Your task to perform on an android device: turn off notifications settings in the gmail app Image 0: 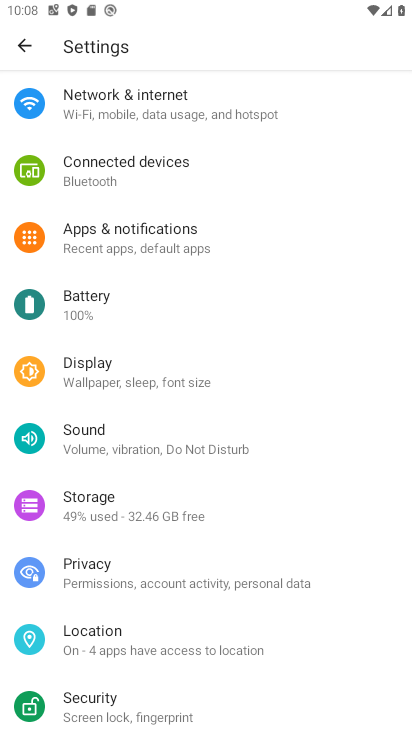
Step 0: press home button
Your task to perform on an android device: turn off notifications settings in the gmail app Image 1: 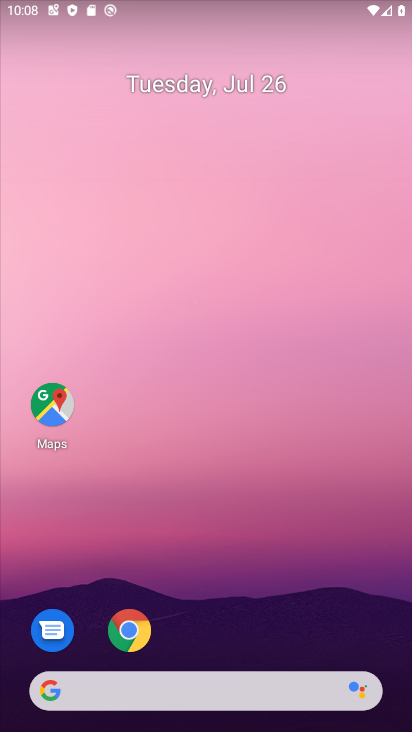
Step 1: drag from (373, 659) to (341, 370)
Your task to perform on an android device: turn off notifications settings in the gmail app Image 2: 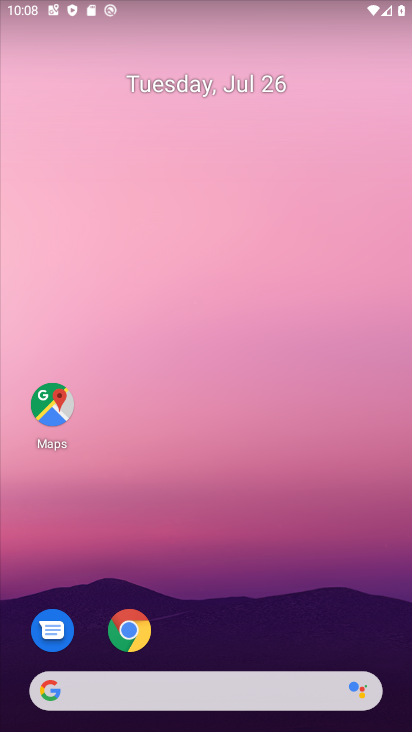
Step 2: drag from (349, 650) to (321, 335)
Your task to perform on an android device: turn off notifications settings in the gmail app Image 3: 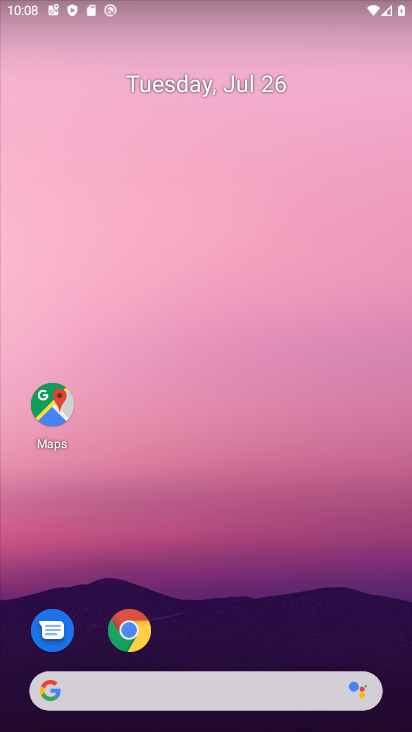
Step 3: drag from (378, 623) to (308, 212)
Your task to perform on an android device: turn off notifications settings in the gmail app Image 4: 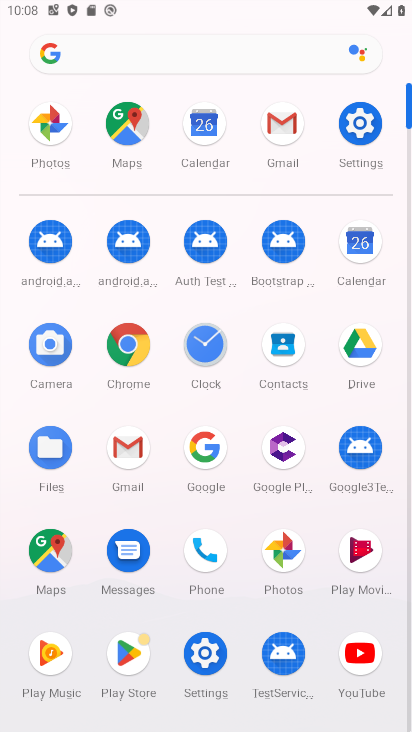
Step 4: click (130, 448)
Your task to perform on an android device: turn off notifications settings in the gmail app Image 5: 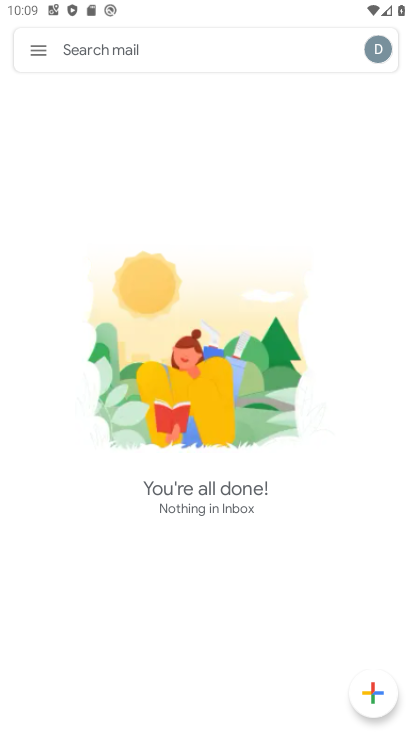
Step 5: click (35, 52)
Your task to perform on an android device: turn off notifications settings in the gmail app Image 6: 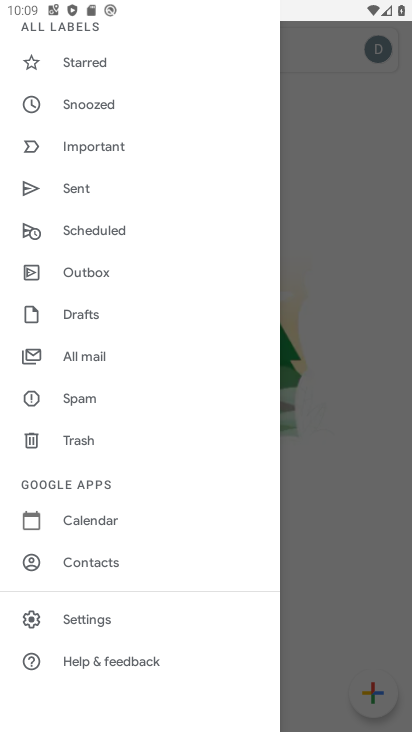
Step 6: click (83, 620)
Your task to perform on an android device: turn off notifications settings in the gmail app Image 7: 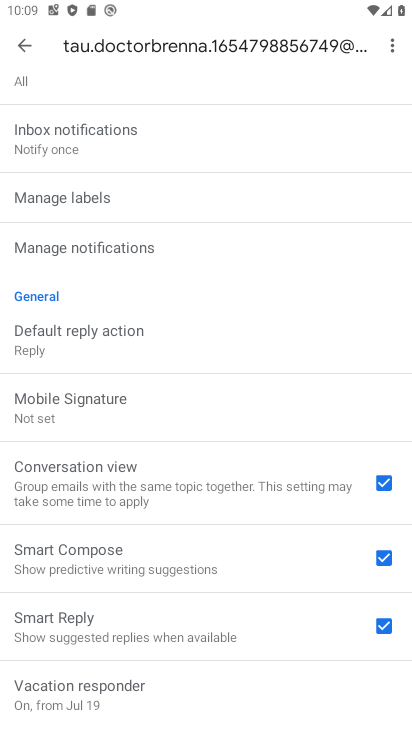
Step 7: click (99, 254)
Your task to perform on an android device: turn off notifications settings in the gmail app Image 8: 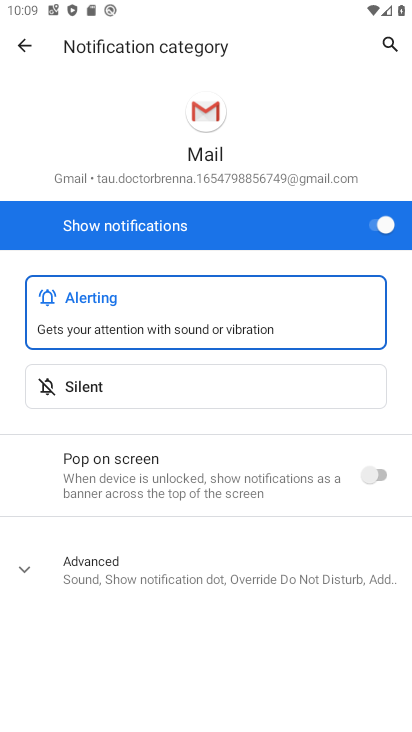
Step 8: click (369, 222)
Your task to perform on an android device: turn off notifications settings in the gmail app Image 9: 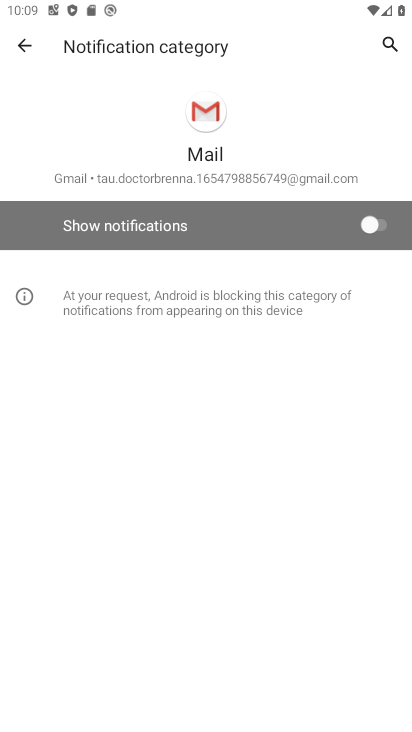
Step 9: task complete